Your task to perform on an android device: open app "Instagram" (install if not already installed) Image 0: 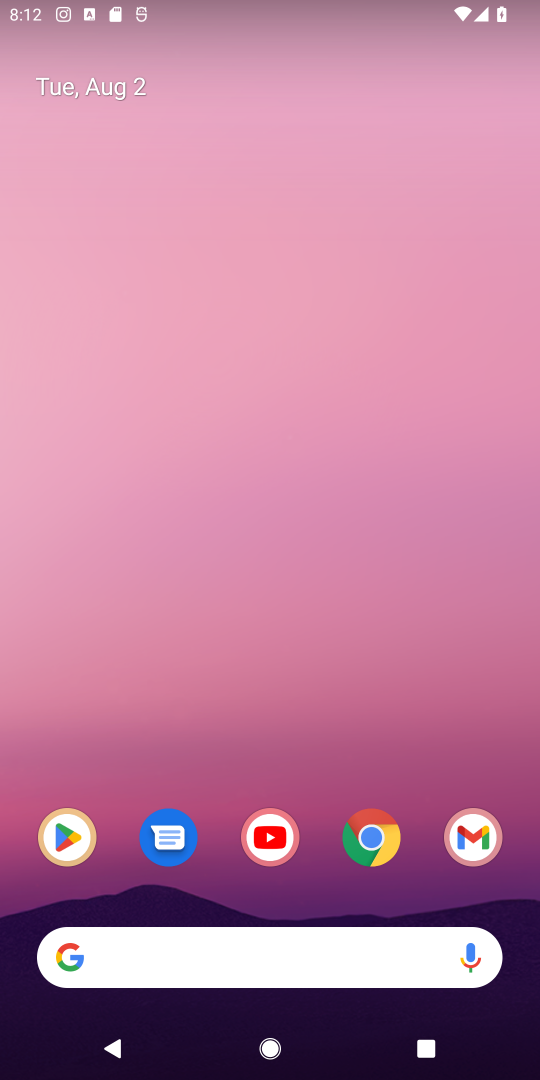
Step 0: click (73, 849)
Your task to perform on an android device: open app "Instagram" (install if not already installed) Image 1: 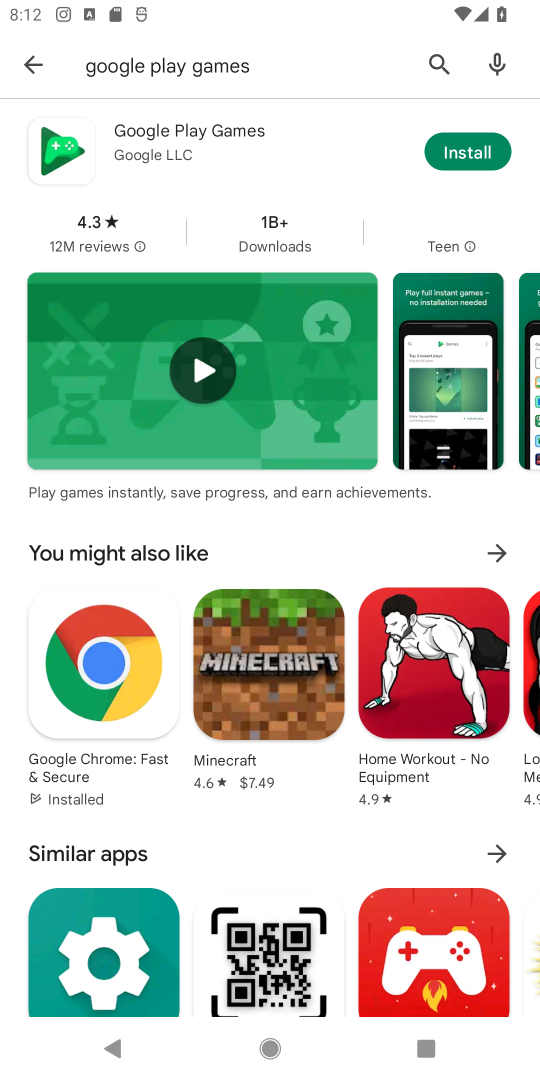
Step 1: click (435, 55)
Your task to perform on an android device: open app "Instagram" (install if not already installed) Image 2: 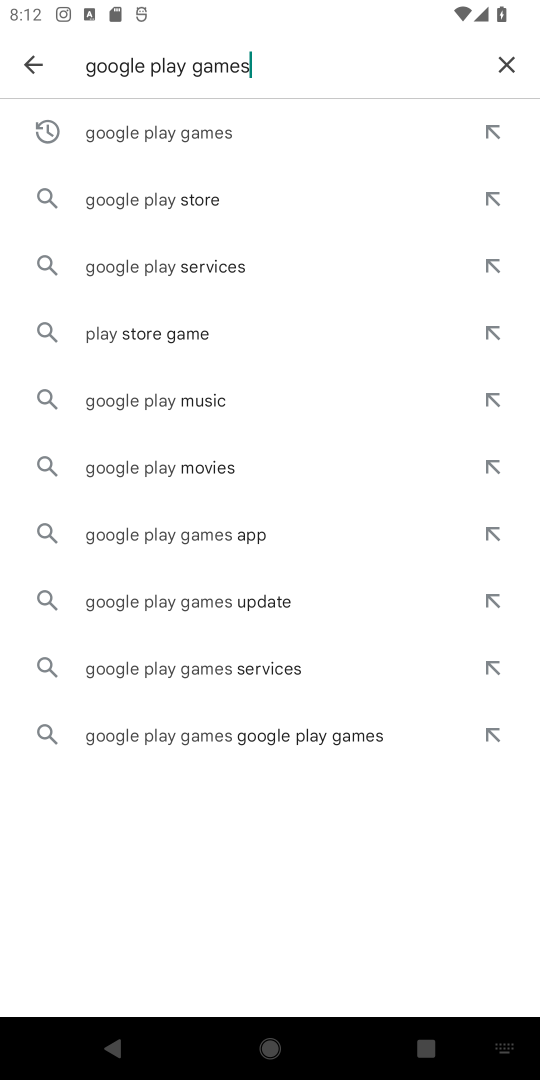
Step 2: click (495, 67)
Your task to perform on an android device: open app "Instagram" (install if not already installed) Image 3: 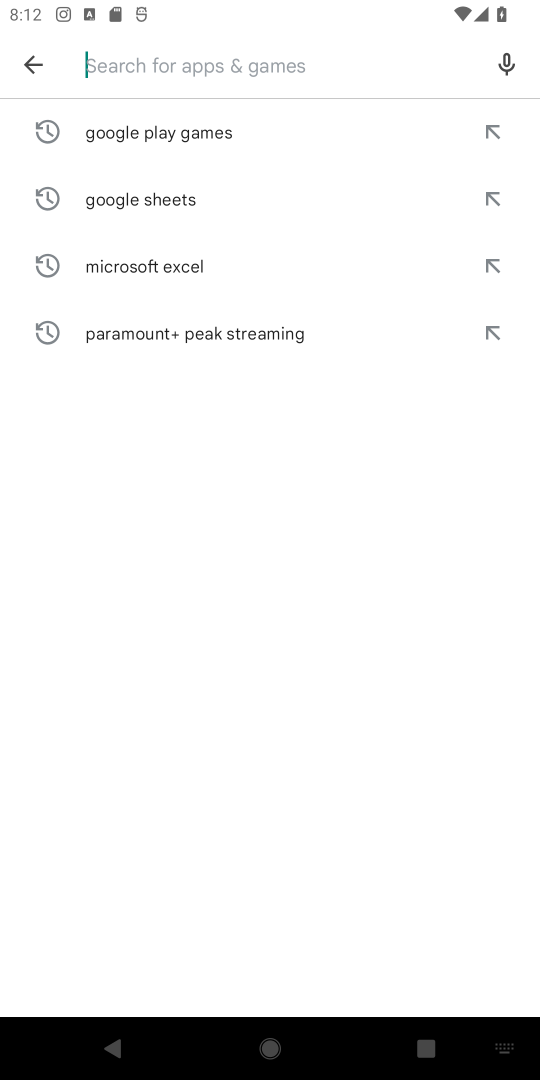
Step 3: type "Instagram"
Your task to perform on an android device: open app "Instagram" (install if not already installed) Image 4: 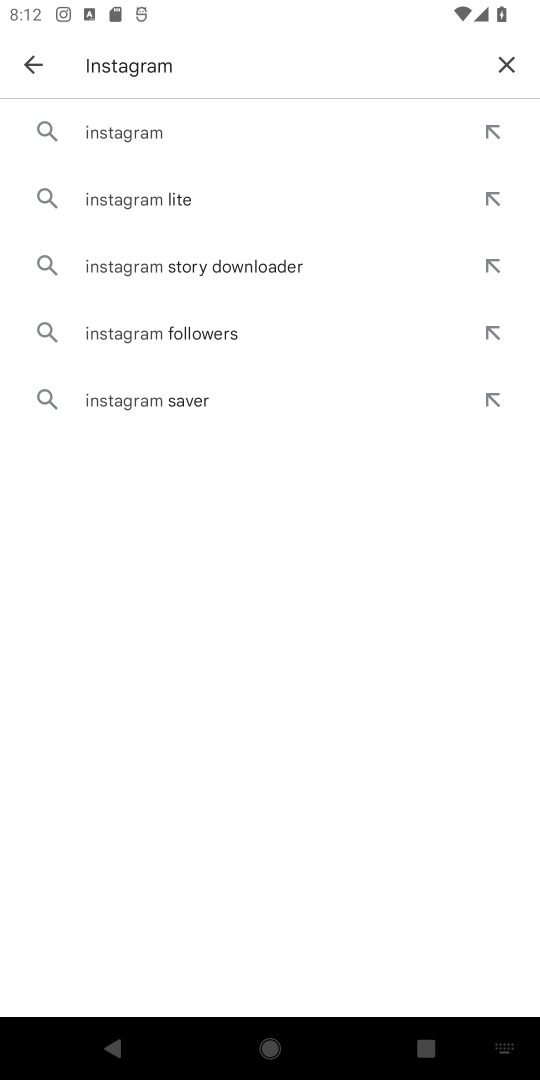
Step 4: click (150, 140)
Your task to perform on an android device: open app "Instagram" (install if not already installed) Image 5: 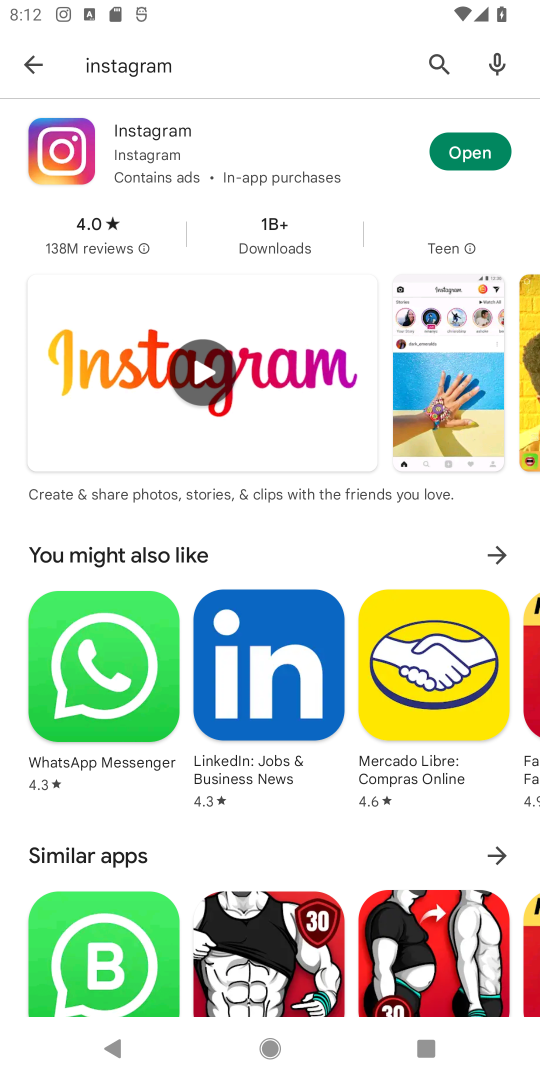
Step 5: click (477, 159)
Your task to perform on an android device: open app "Instagram" (install if not already installed) Image 6: 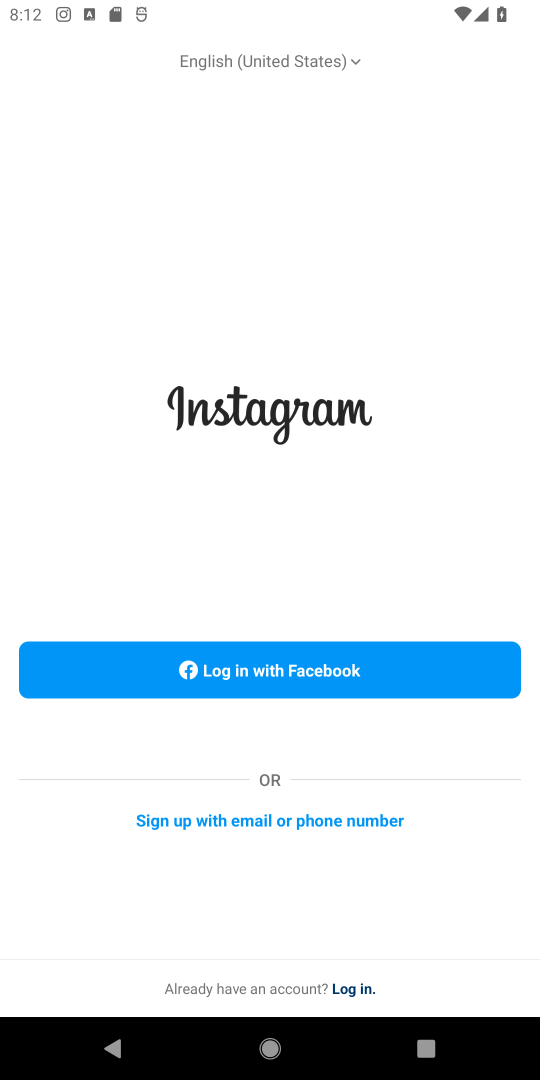
Step 6: task complete